Your task to perform on an android device: turn off wifi Image 0: 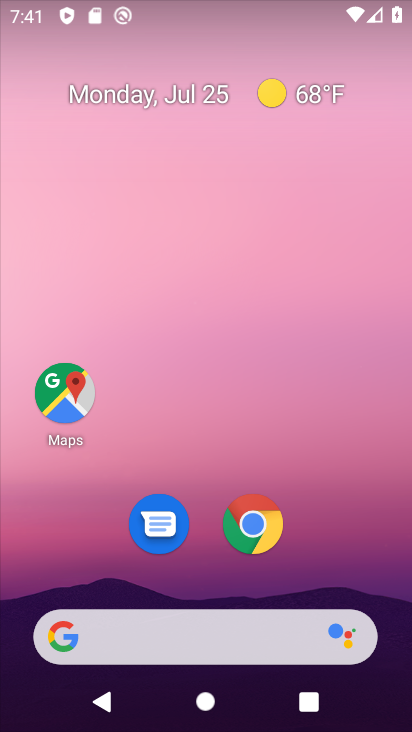
Step 0: drag from (326, 541) to (354, 29)
Your task to perform on an android device: turn off wifi Image 1: 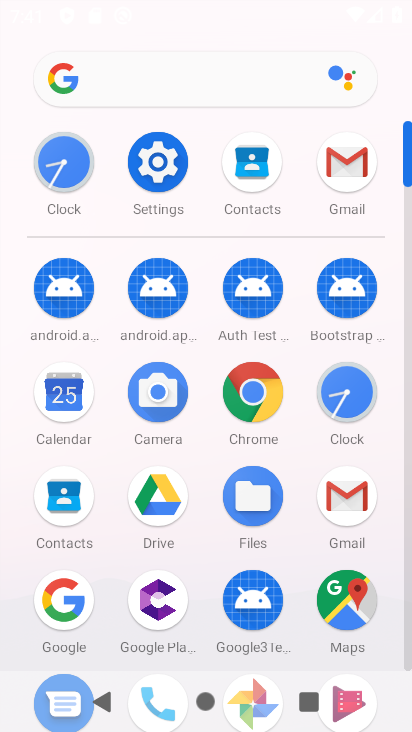
Step 1: click (158, 165)
Your task to perform on an android device: turn off wifi Image 2: 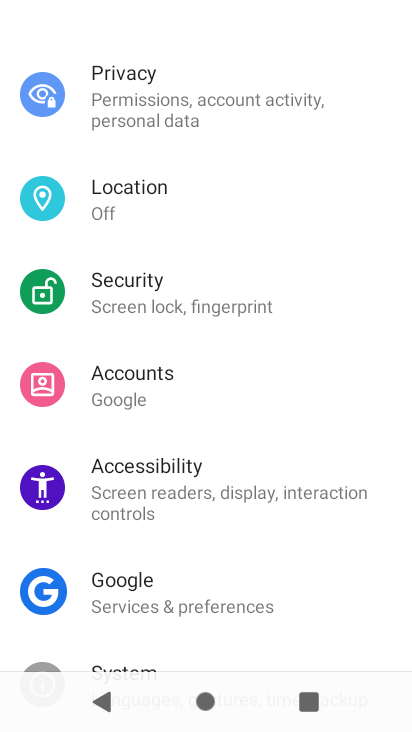
Step 2: drag from (221, 147) to (229, 551)
Your task to perform on an android device: turn off wifi Image 3: 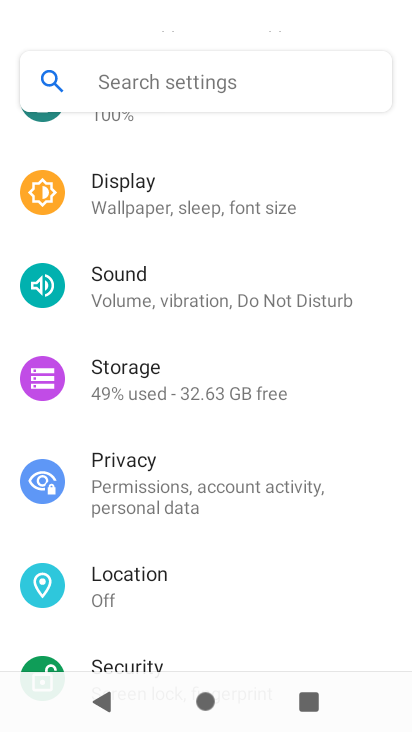
Step 3: drag from (252, 172) to (241, 595)
Your task to perform on an android device: turn off wifi Image 4: 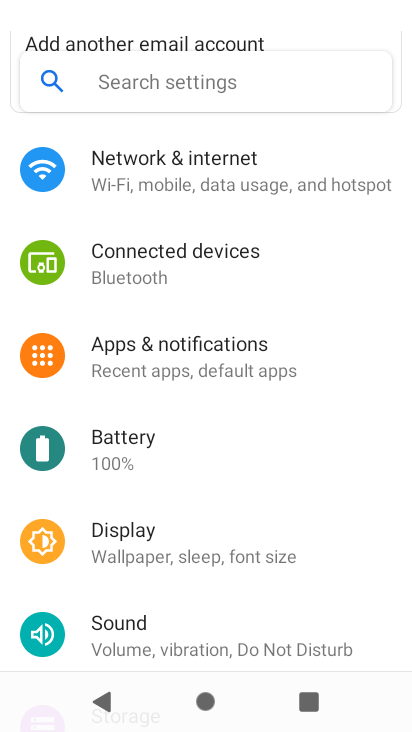
Step 4: click (241, 177)
Your task to perform on an android device: turn off wifi Image 5: 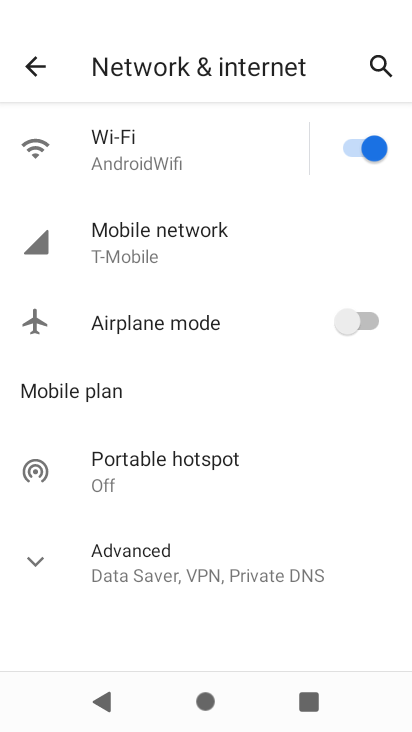
Step 5: click (362, 145)
Your task to perform on an android device: turn off wifi Image 6: 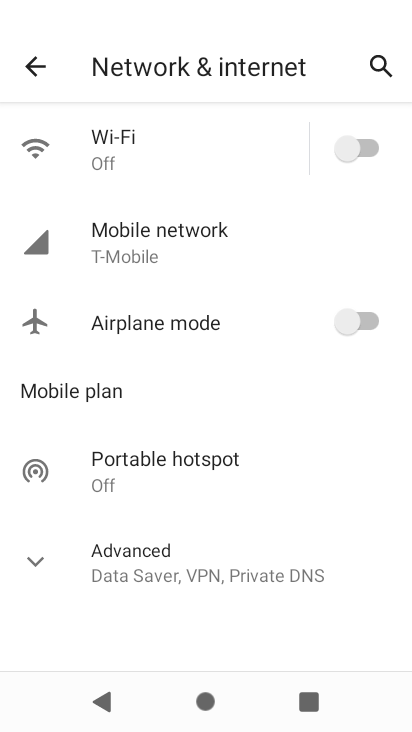
Step 6: task complete